Your task to perform on an android device: open wifi settings Image 0: 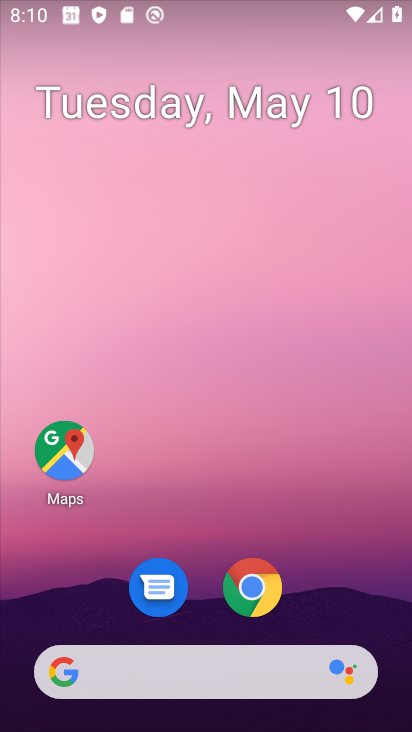
Step 0: drag from (319, 614) to (305, 25)
Your task to perform on an android device: open wifi settings Image 1: 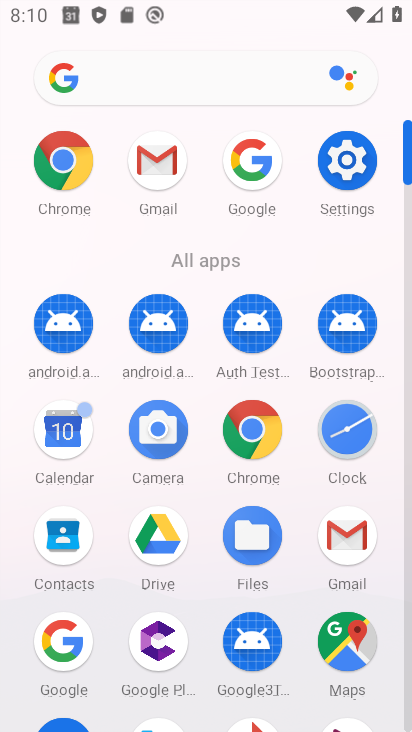
Step 1: click (339, 157)
Your task to perform on an android device: open wifi settings Image 2: 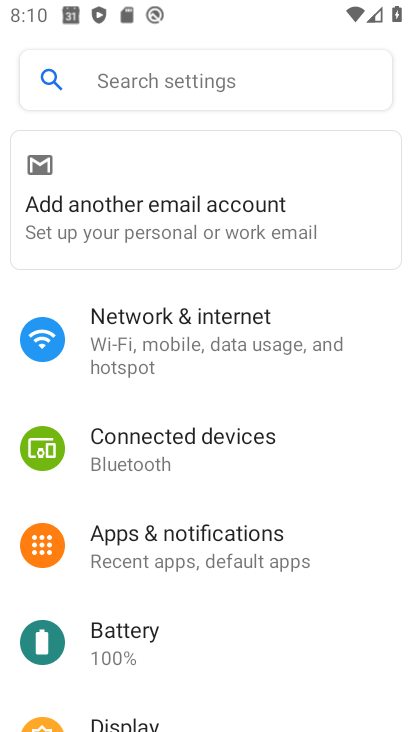
Step 2: click (194, 328)
Your task to perform on an android device: open wifi settings Image 3: 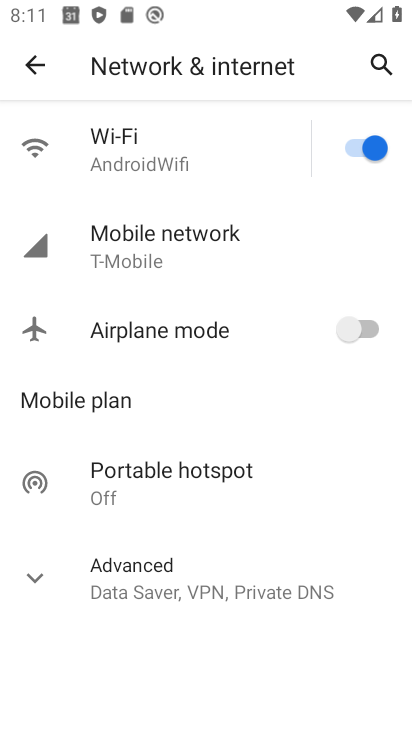
Step 3: click (155, 152)
Your task to perform on an android device: open wifi settings Image 4: 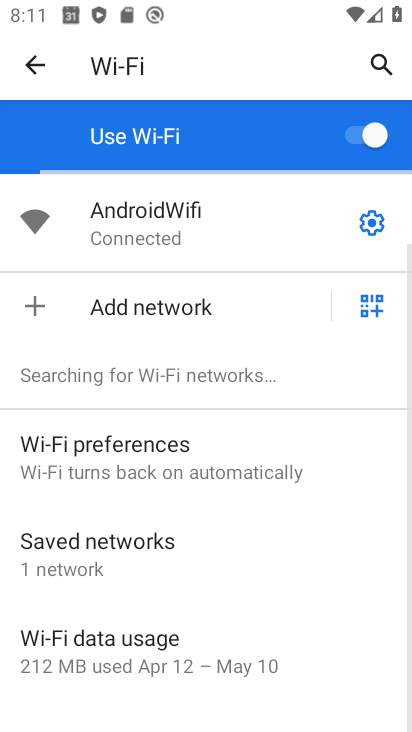
Step 4: task complete